Your task to perform on an android device: Go to battery settings Image 0: 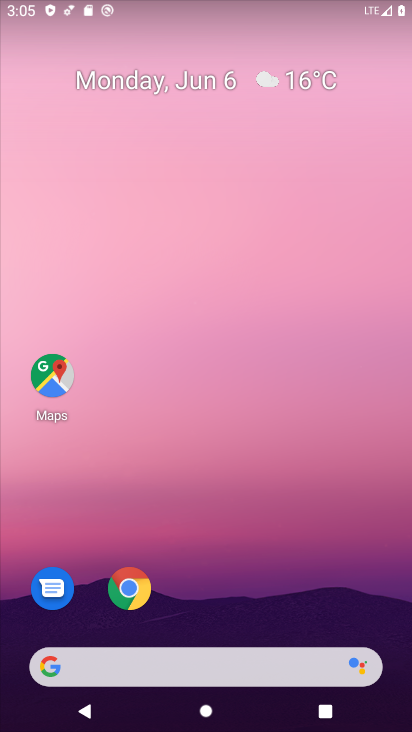
Step 0: drag from (188, 667) to (195, 107)
Your task to perform on an android device: Go to battery settings Image 1: 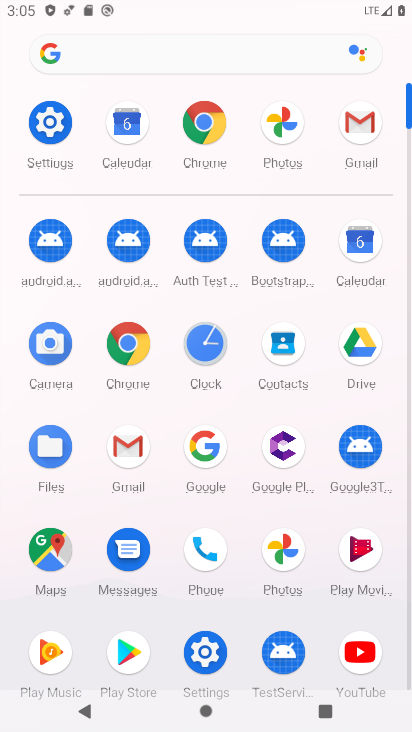
Step 1: click (216, 665)
Your task to perform on an android device: Go to battery settings Image 2: 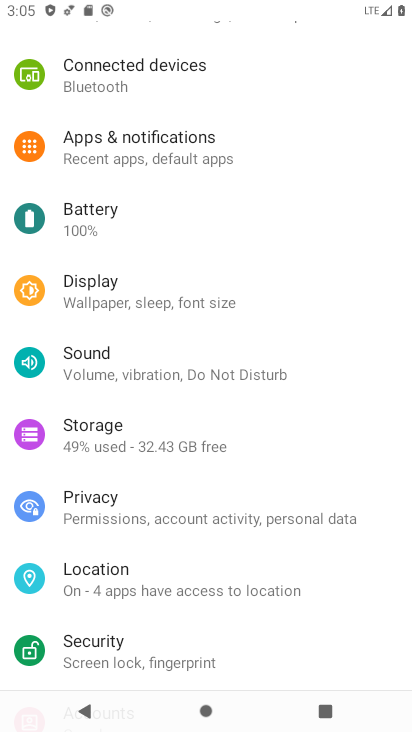
Step 2: click (81, 226)
Your task to perform on an android device: Go to battery settings Image 3: 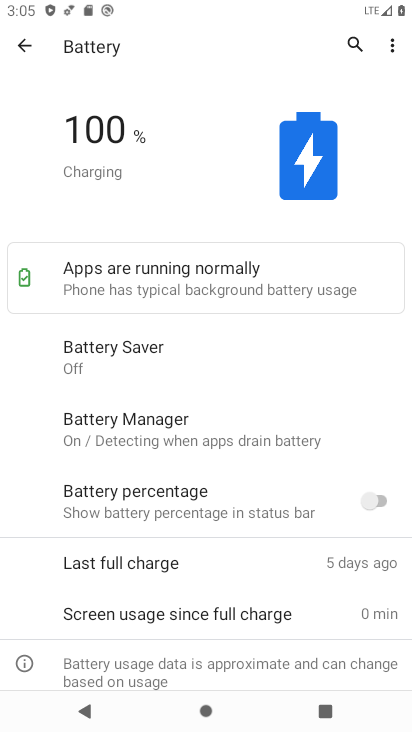
Step 3: task complete